Your task to perform on an android device: allow cookies in the chrome app Image 0: 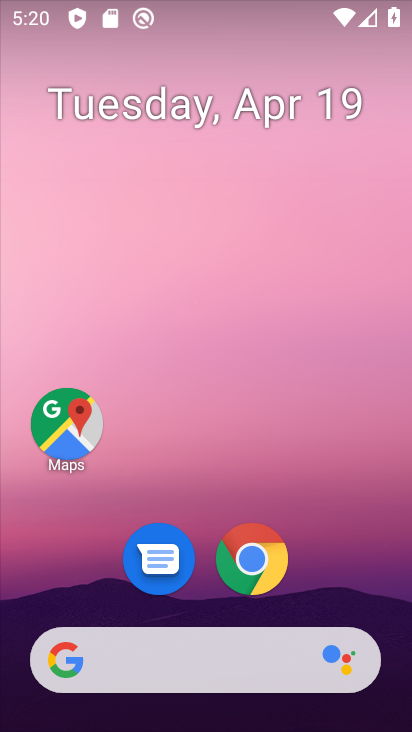
Step 0: click (257, 541)
Your task to perform on an android device: allow cookies in the chrome app Image 1: 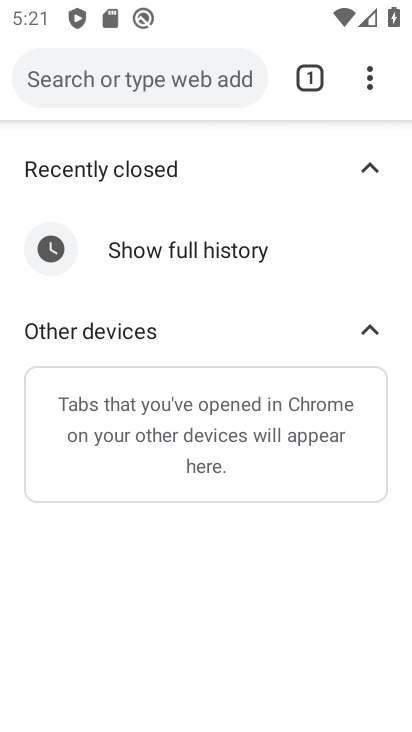
Step 1: click (377, 82)
Your task to perform on an android device: allow cookies in the chrome app Image 2: 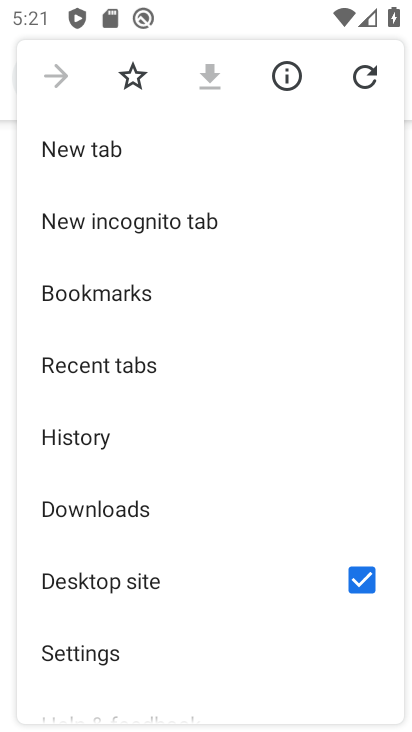
Step 2: click (93, 636)
Your task to perform on an android device: allow cookies in the chrome app Image 3: 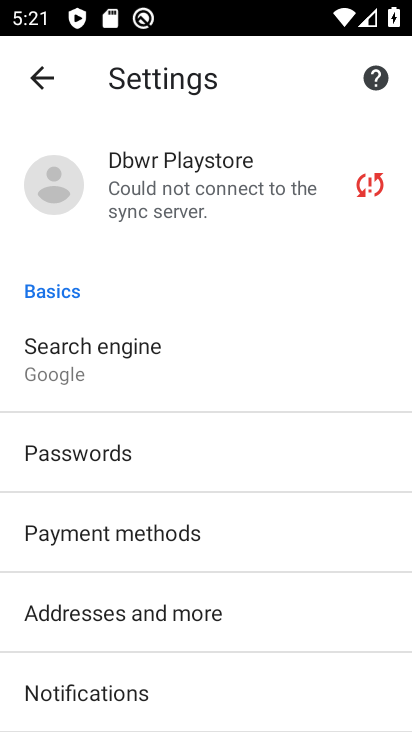
Step 3: drag from (192, 490) to (229, 28)
Your task to perform on an android device: allow cookies in the chrome app Image 4: 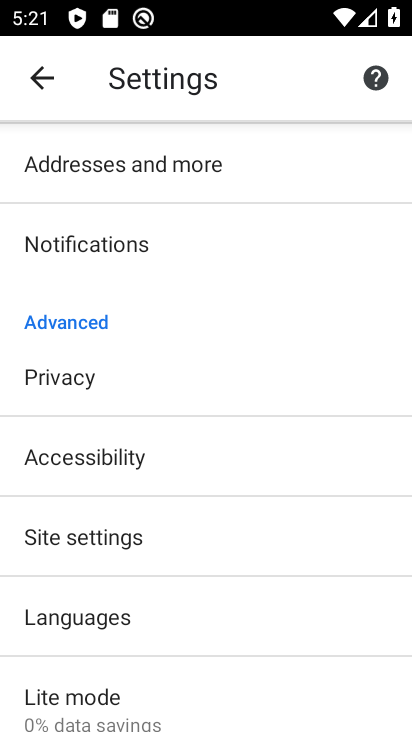
Step 4: drag from (193, 655) to (194, 45)
Your task to perform on an android device: allow cookies in the chrome app Image 5: 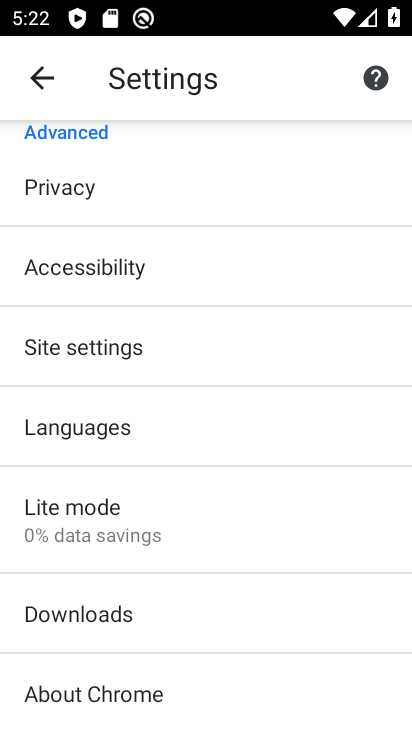
Step 5: drag from (195, 437) to (213, 146)
Your task to perform on an android device: allow cookies in the chrome app Image 6: 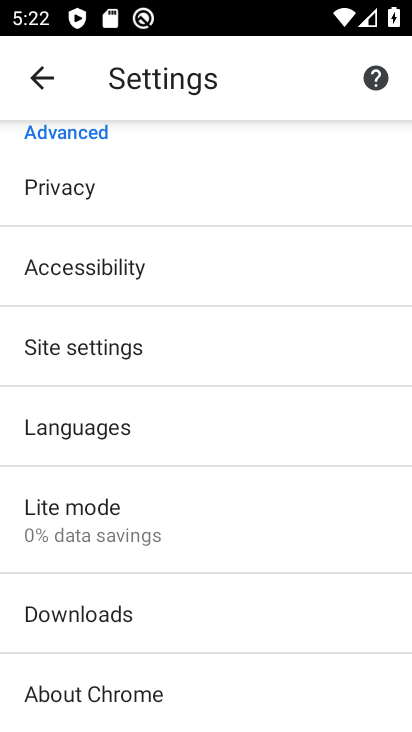
Step 6: click (179, 346)
Your task to perform on an android device: allow cookies in the chrome app Image 7: 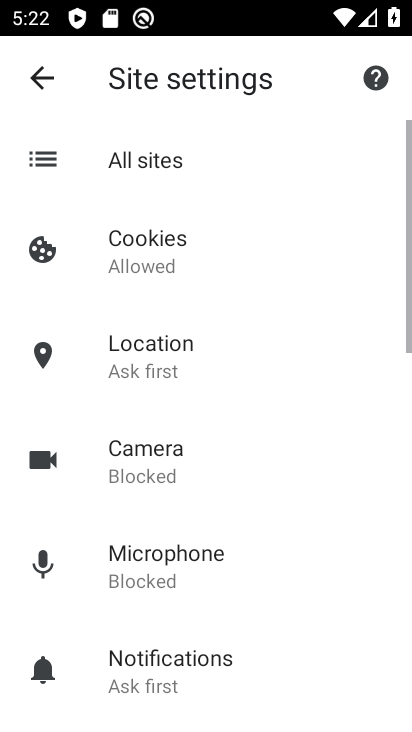
Step 7: task complete